Your task to perform on an android device: Toggle the flashlight Image 0: 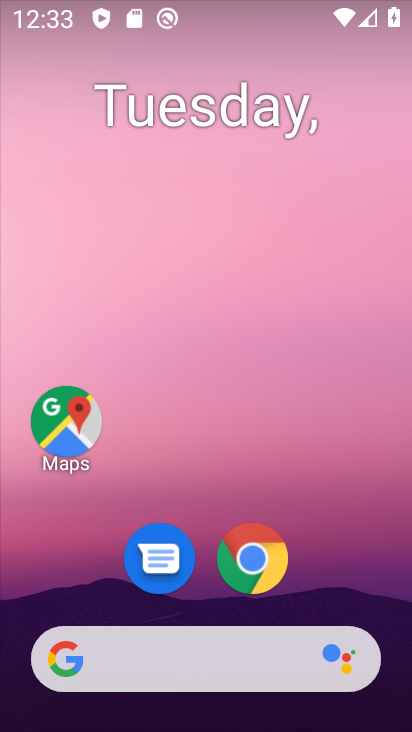
Step 0: drag from (314, 50) to (312, 578)
Your task to perform on an android device: Toggle the flashlight Image 1: 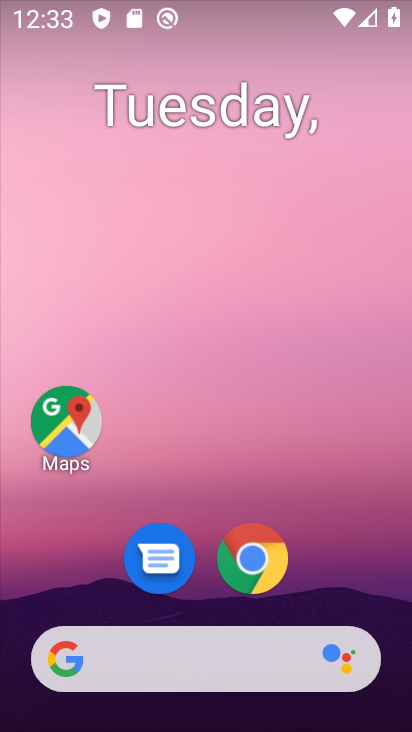
Step 1: task complete